Your task to perform on an android device: turn notification dots off Image 0: 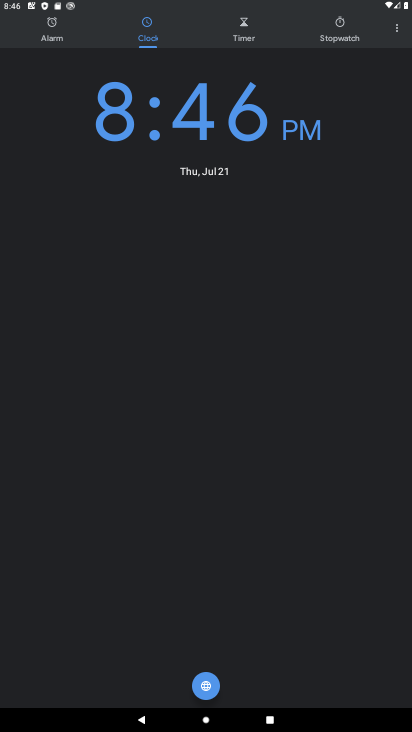
Step 0: press home button
Your task to perform on an android device: turn notification dots off Image 1: 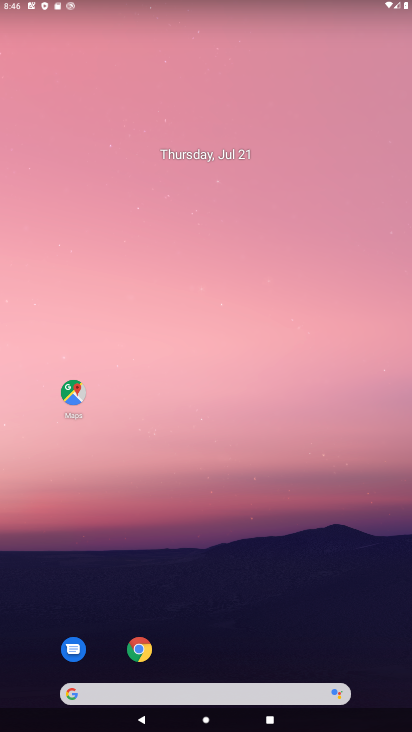
Step 1: drag from (265, 659) to (219, 219)
Your task to perform on an android device: turn notification dots off Image 2: 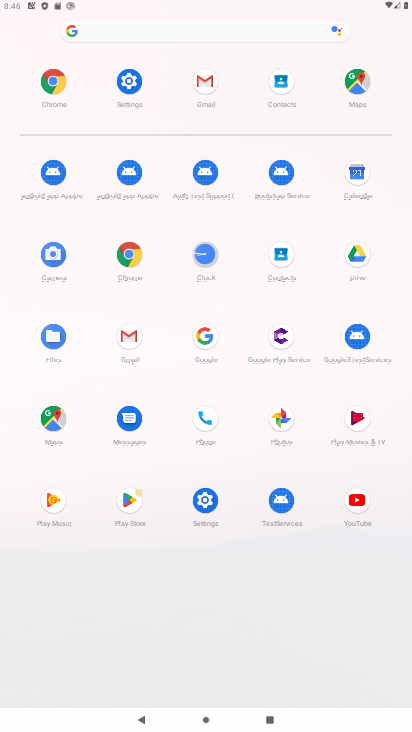
Step 2: click (212, 505)
Your task to perform on an android device: turn notification dots off Image 3: 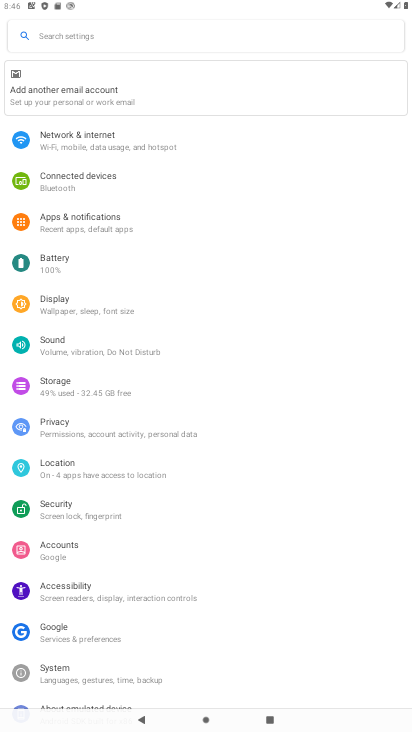
Step 3: click (102, 225)
Your task to perform on an android device: turn notification dots off Image 4: 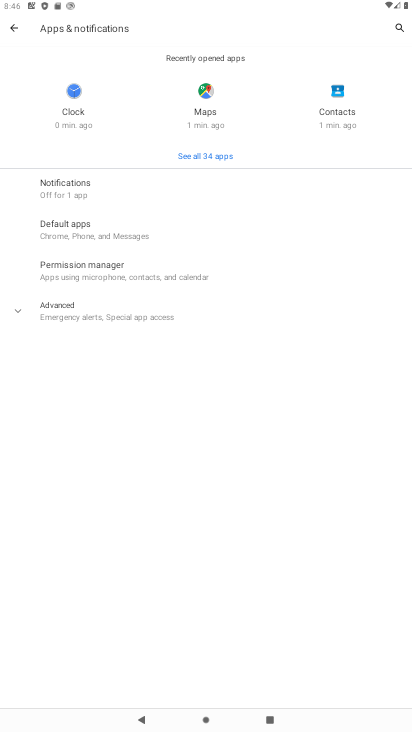
Step 4: click (94, 188)
Your task to perform on an android device: turn notification dots off Image 5: 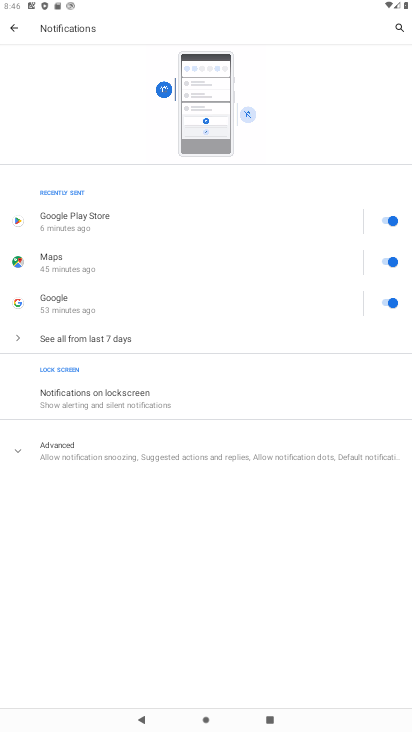
Step 5: click (134, 446)
Your task to perform on an android device: turn notification dots off Image 6: 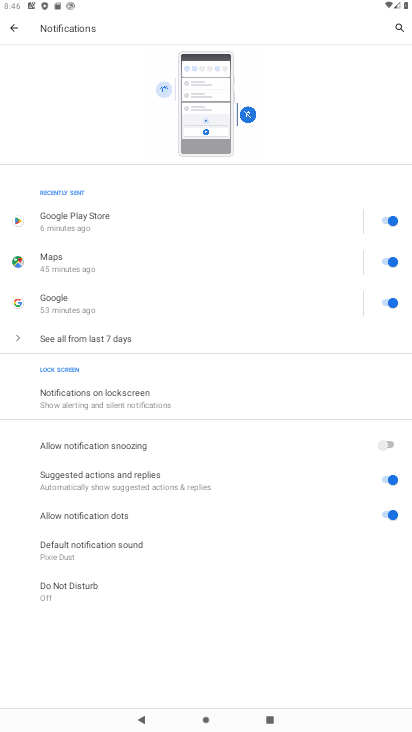
Step 6: click (373, 525)
Your task to perform on an android device: turn notification dots off Image 7: 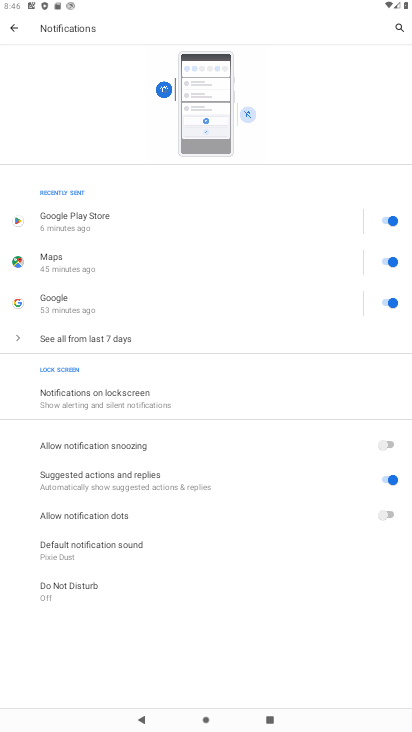
Step 7: task complete